Your task to perform on an android device: change notification settings in the gmail app Image 0: 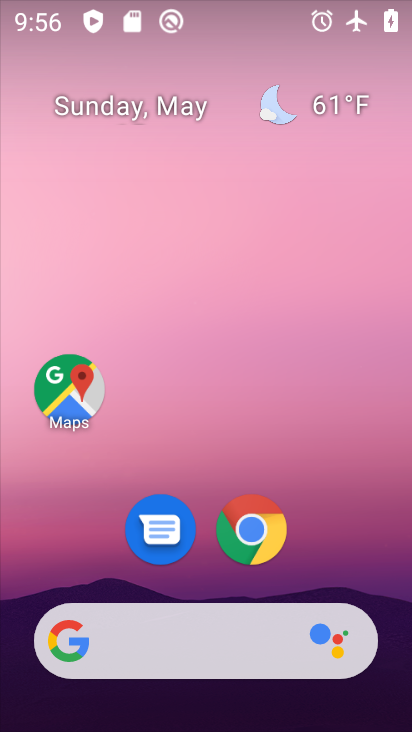
Step 0: drag from (227, 728) to (220, 133)
Your task to perform on an android device: change notification settings in the gmail app Image 1: 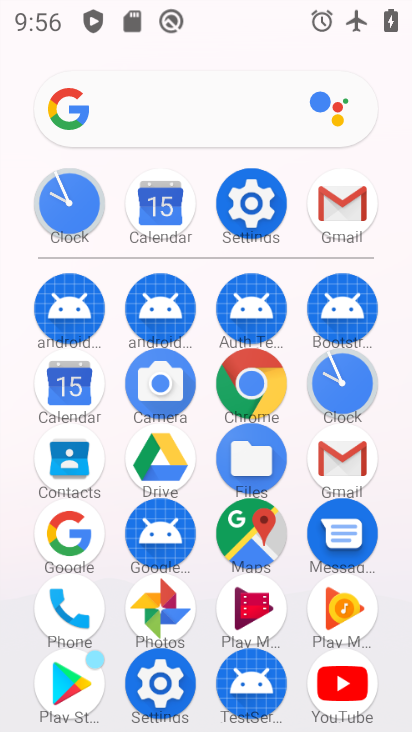
Step 1: click (349, 444)
Your task to perform on an android device: change notification settings in the gmail app Image 2: 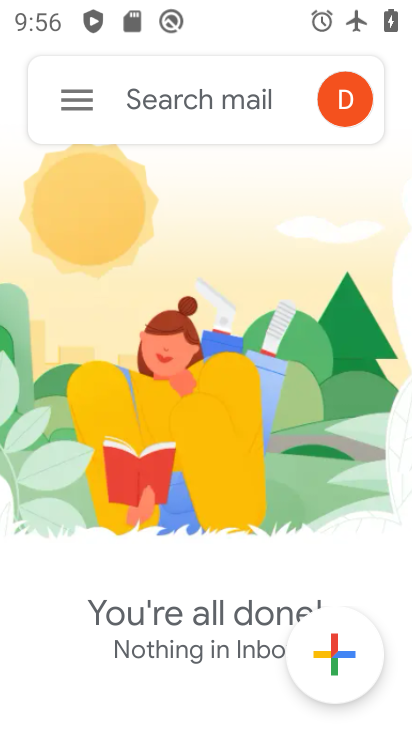
Step 2: click (80, 102)
Your task to perform on an android device: change notification settings in the gmail app Image 3: 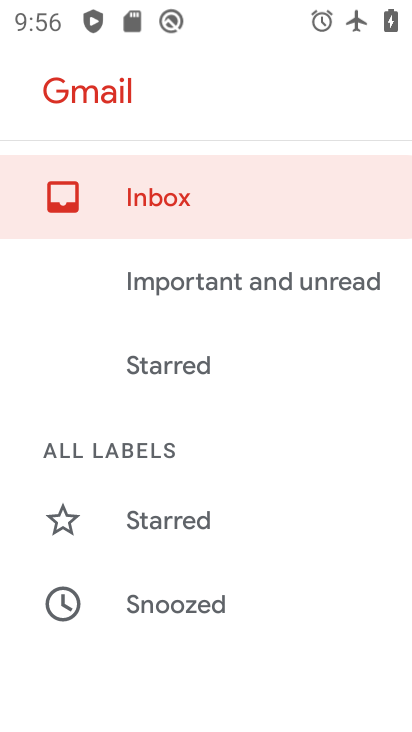
Step 3: drag from (169, 548) to (179, 137)
Your task to perform on an android device: change notification settings in the gmail app Image 4: 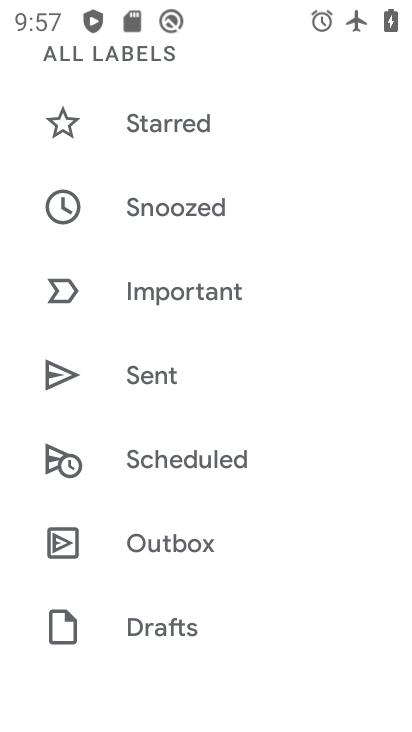
Step 4: drag from (139, 670) to (169, 312)
Your task to perform on an android device: change notification settings in the gmail app Image 5: 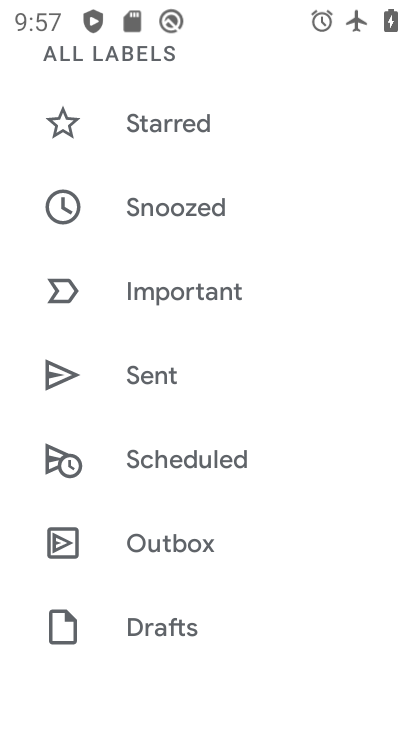
Step 5: drag from (168, 664) to (155, 144)
Your task to perform on an android device: change notification settings in the gmail app Image 6: 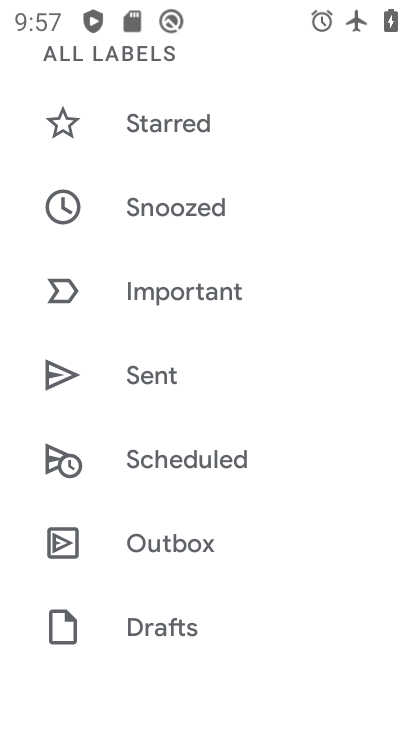
Step 6: drag from (168, 549) to (169, 138)
Your task to perform on an android device: change notification settings in the gmail app Image 7: 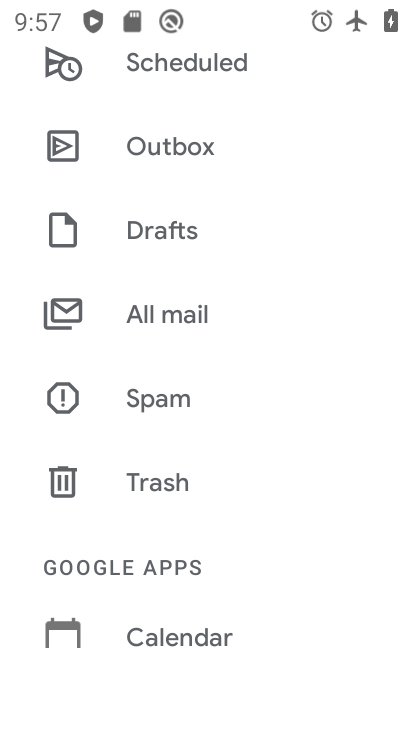
Step 7: drag from (170, 609) to (179, 99)
Your task to perform on an android device: change notification settings in the gmail app Image 8: 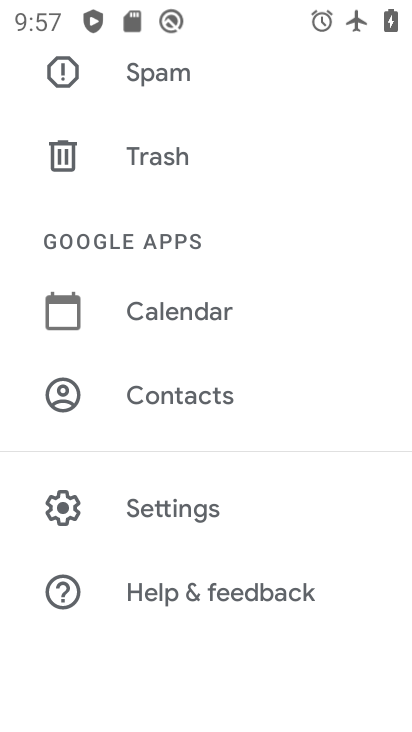
Step 8: click (159, 509)
Your task to perform on an android device: change notification settings in the gmail app Image 9: 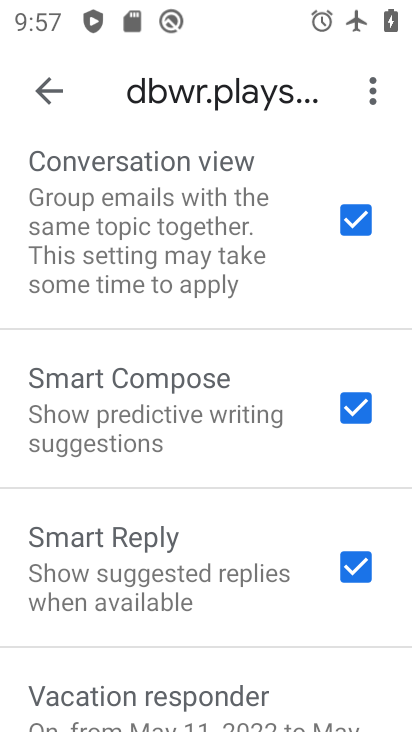
Step 9: drag from (138, 623) to (161, 167)
Your task to perform on an android device: change notification settings in the gmail app Image 10: 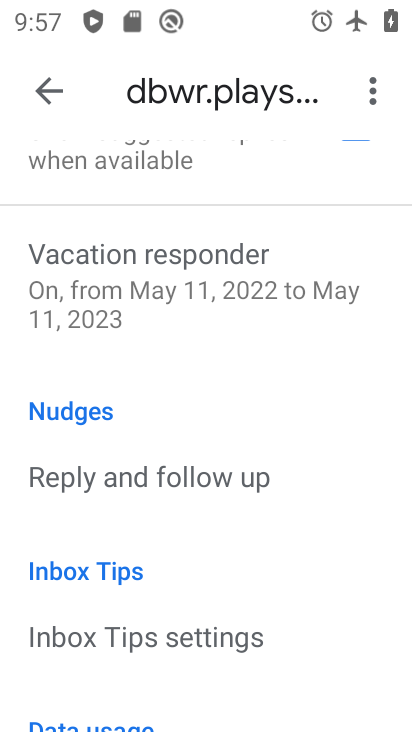
Step 10: drag from (180, 254) to (170, 537)
Your task to perform on an android device: change notification settings in the gmail app Image 11: 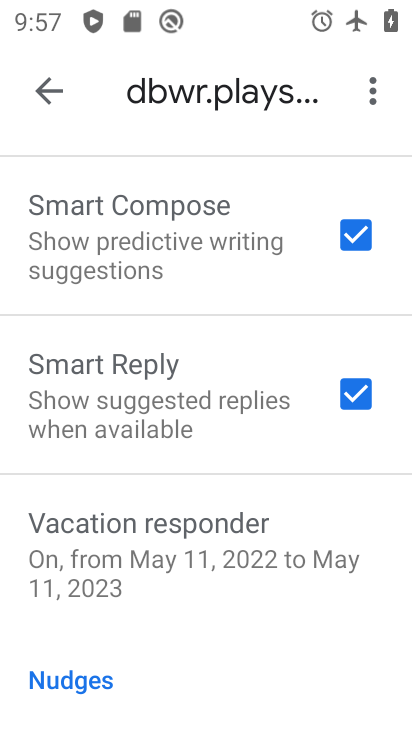
Step 11: drag from (149, 215) to (138, 604)
Your task to perform on an android device: change notification settings in the gmail app Image 12: 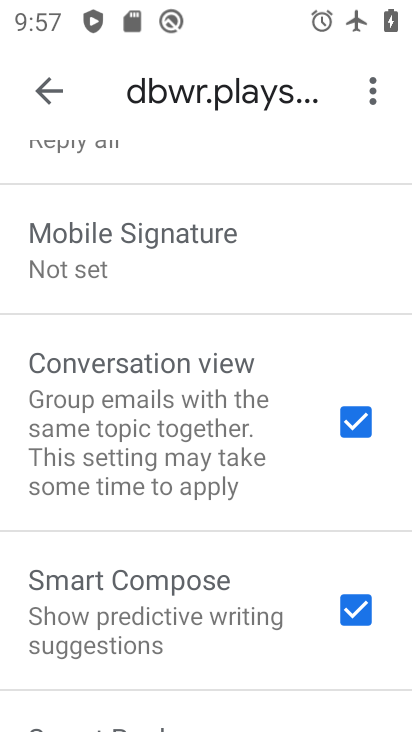
Step 12: drag from (185, 213) to (177, 611)
Your task to perform on an android device: change notification settings in the gmail app Image 13: 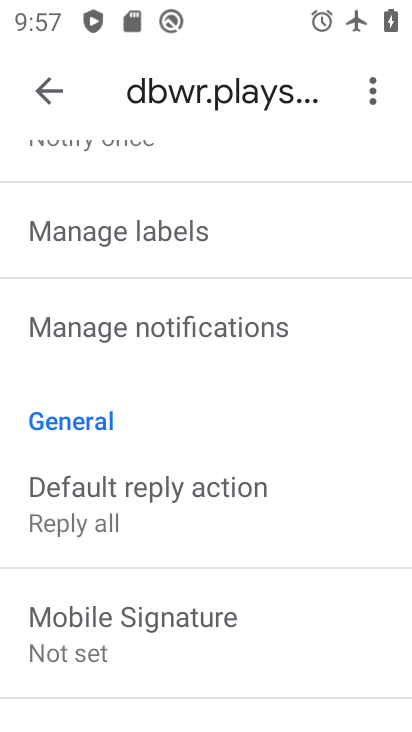
Step 13: drag from (195, 219) to (188, 624)
Your task to perform on an android device: change notification settings in the gmail app Image 14: 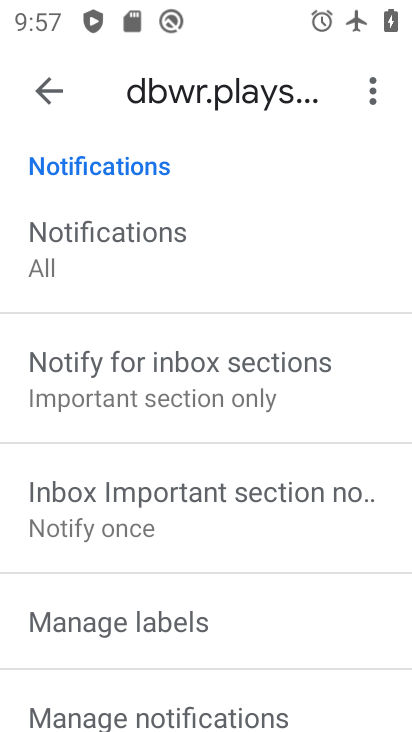
Step 14: drag from (210, 256) to (206, 400)
Your task to perform on an android device: change notification settings in the gmail app Image 15: 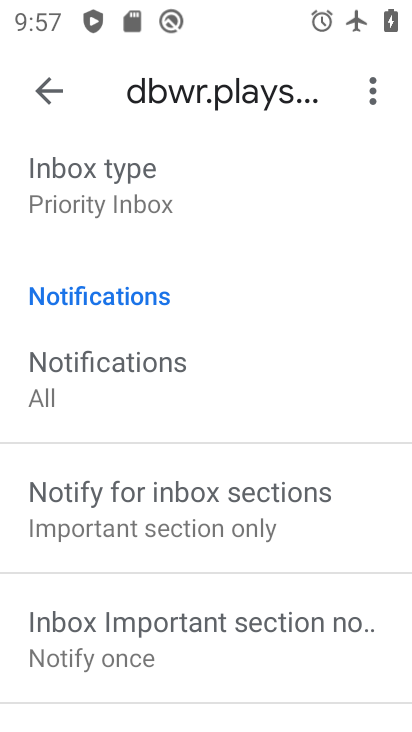
Step 15: click (37, 369)
Your task to perform on an android device: change notification settings in the gmail app Image 16: 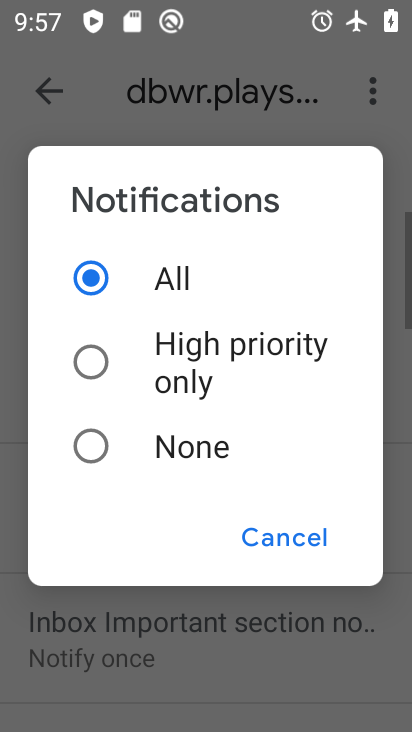
Step 16: click (85, 446)
Your task to perform on an android device: change notification settings in the gmail app Image 17: 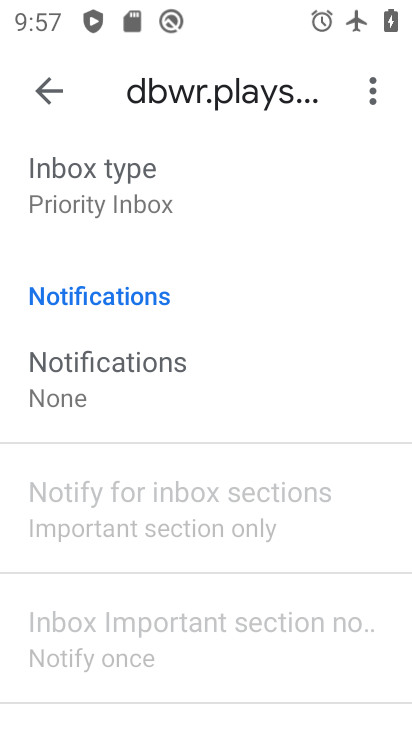
Step 17: task complete